Your task to perform on an android device: Open Yahoo.com Image 0: 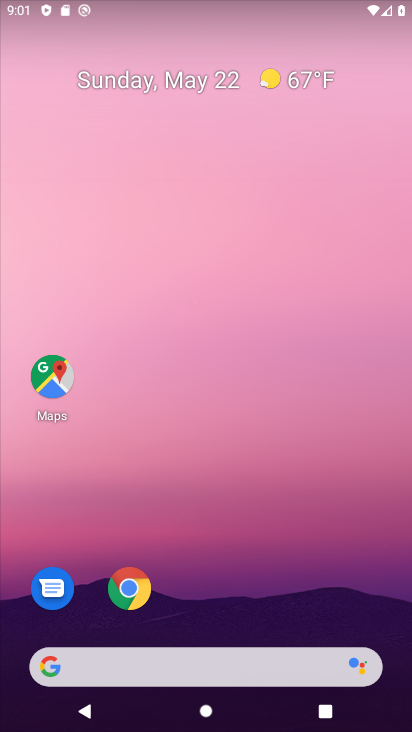
Step 0: click (124, 565)
Your task to perform on an android device: Open Yahoo.com Image 1: 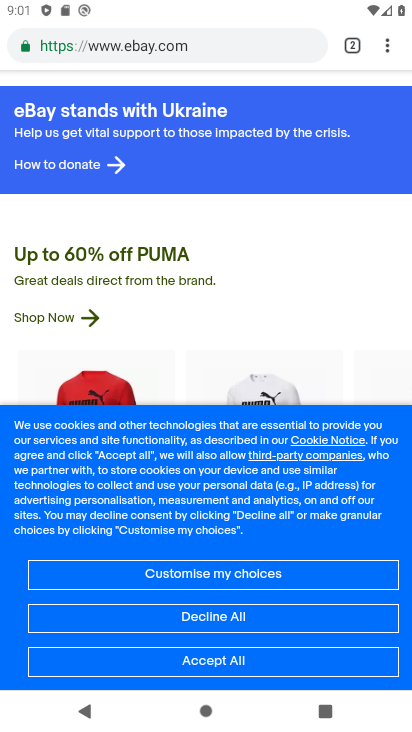
Step 1: click (348, 52)
Your task to perform on an android device: Open Yahoo.com Image 2: 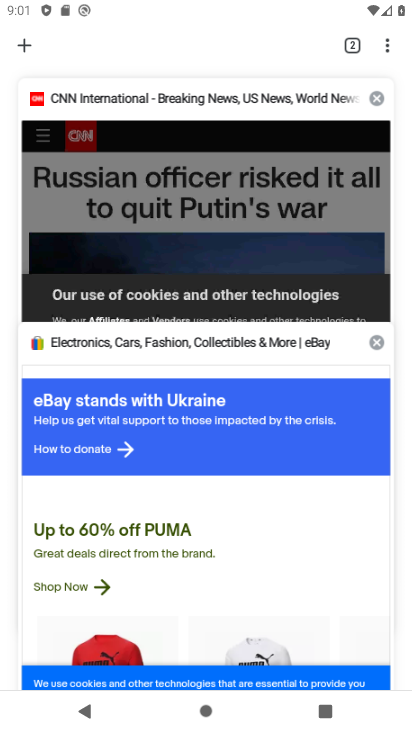
Step 2: click (27, 41)
Your task to perform on an android device: Open Yahoo.com Image 3: 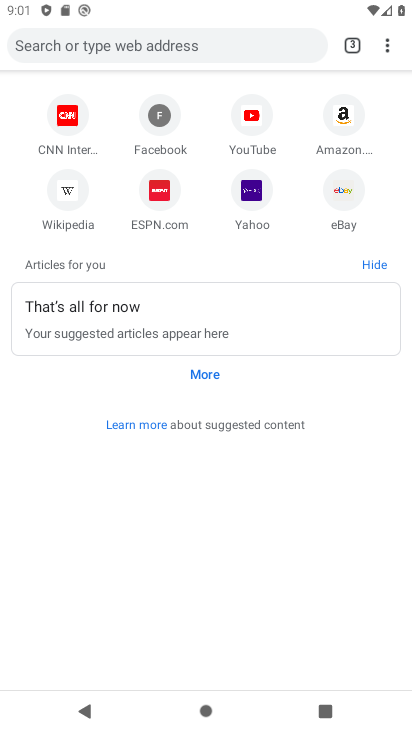
Step 3: click (251, 202)
Your task to perform on an android device: Open Yahoo.com Image 4: 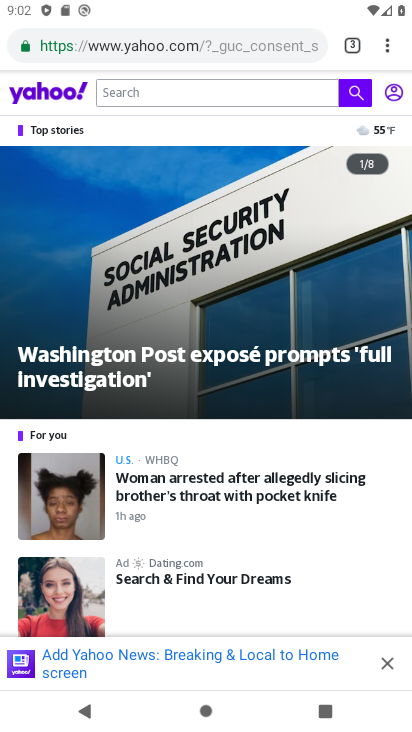
Step 4: task complete